Your task to perform on an android device: Open the phone app and click the voicemail tab. Image 0: 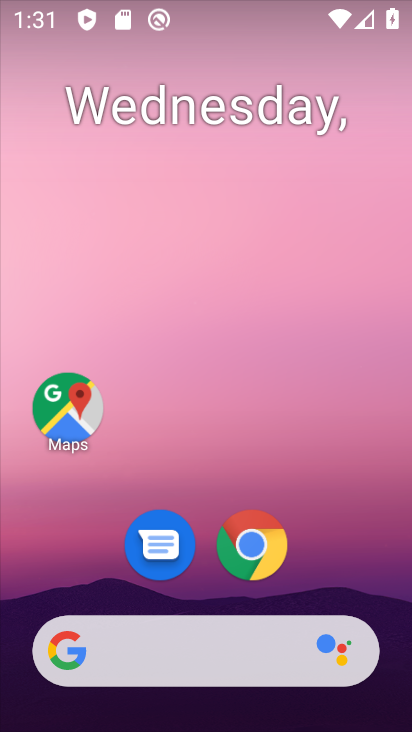
Step 0: drag from (198, 591) to (302, 19)
Your task to perform on an android device: Open the phone app and click the voicemail tab. Image 1: 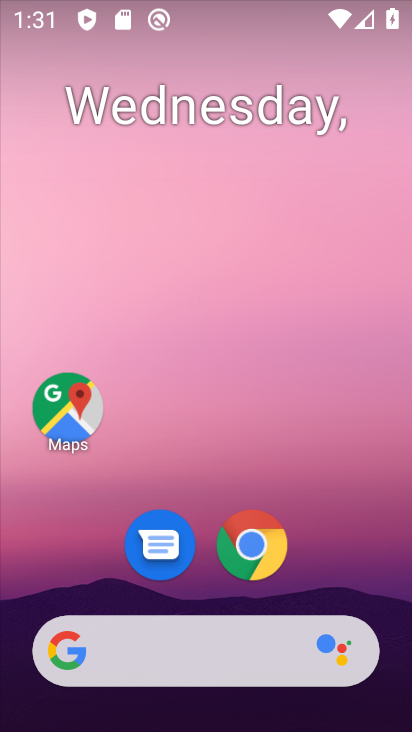
Step 1: drag from (207, 397) to (247, 4)
Your task to perform on an android device: Open the phone app and click the voicemail tab. Image 2: 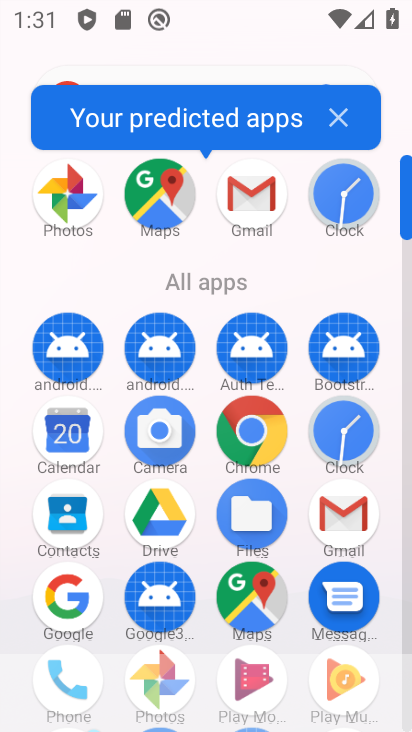
Step 2: drag from (204, 462) to (254, 200)
Your task to perform on an android device: Open the phone app and click the voicemail tab. Image 3: 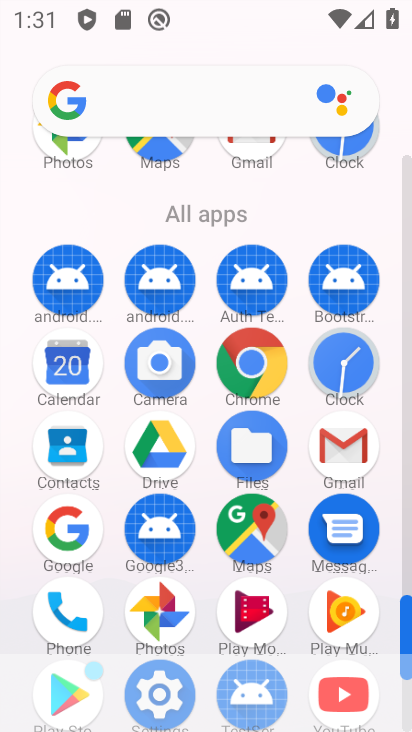
Step 3: drag from (192, 550) to (305, 119)
Your task to perform on an android device: Open the phone app and click the voicemail tab. Image 4: 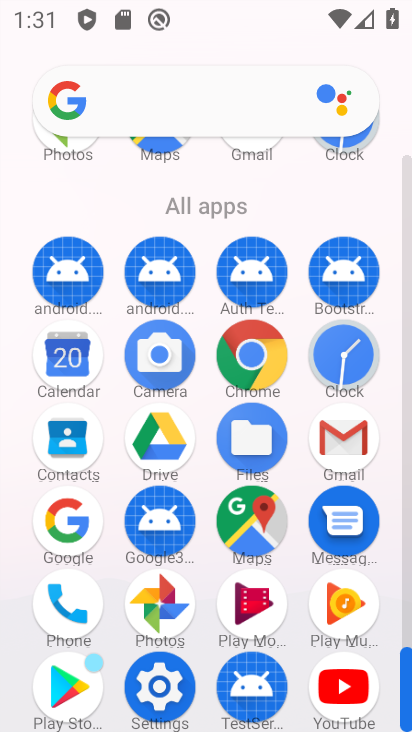
Step 4: click (72, 612)
Your task to perform on an android device: Open the phone app and click the voicemail tab. Image 5: 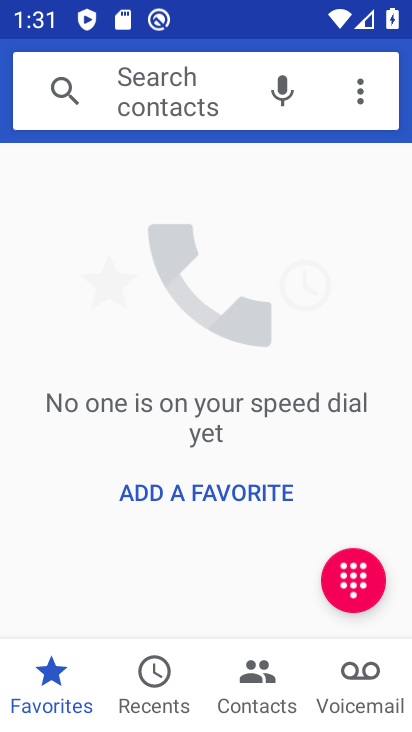
Step 5: click (357, 679)
Your task to perform on an android device: Open the phone app and click the voicemail tab. Image 6: 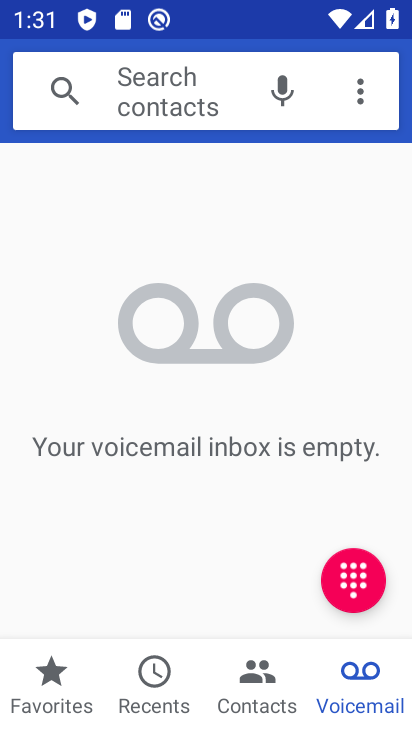
Step 6: task complete